Your task to perform on an android device: Open Google Image 0: 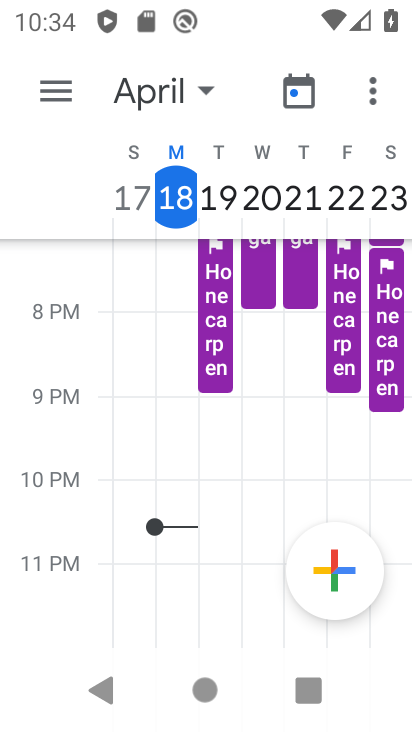
Step 0: press home button
Your task to perform on an android device: Open Google Image 1: 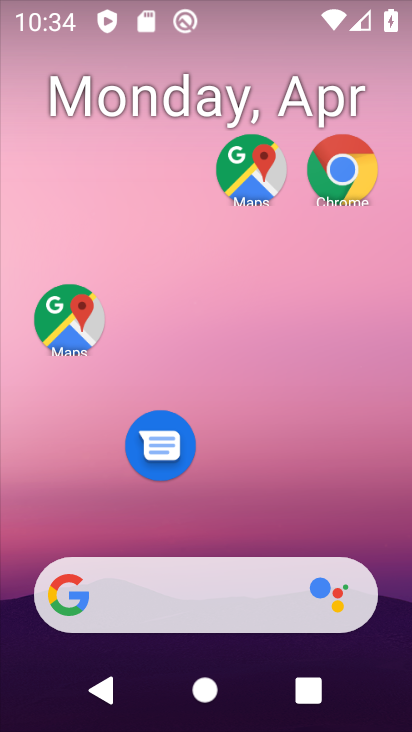
Step 1: drag from (255, 492) to (370, 9)
Your task to perform on an android device: Open Google Image 2: 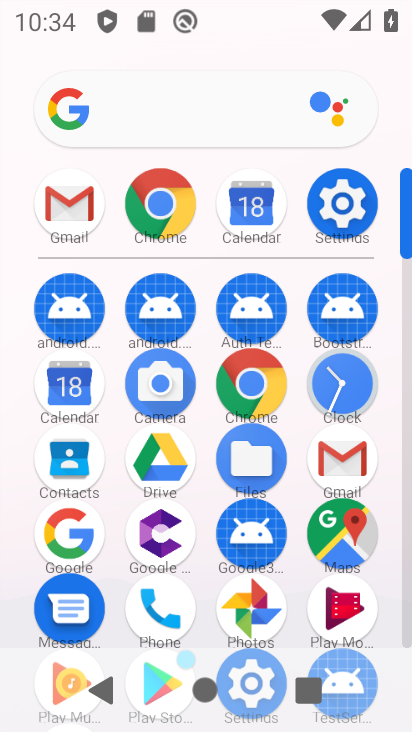
Step 2: click (73, 530)
Your task to perform on an android device: Open Google Image 3: 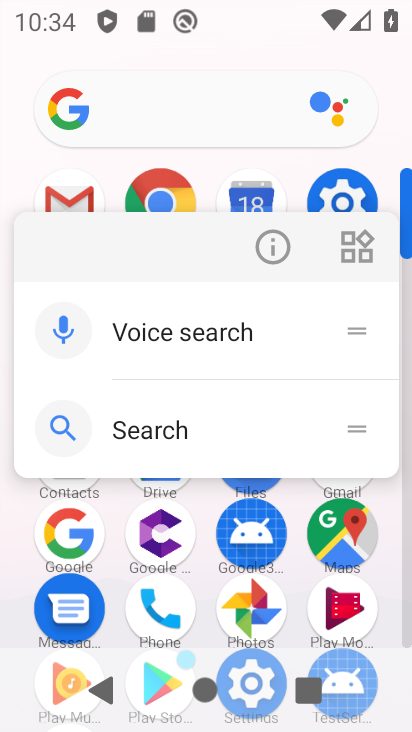
Step 3: click (77, 523)
Your task to perform on an android device: Open Google Image 4: 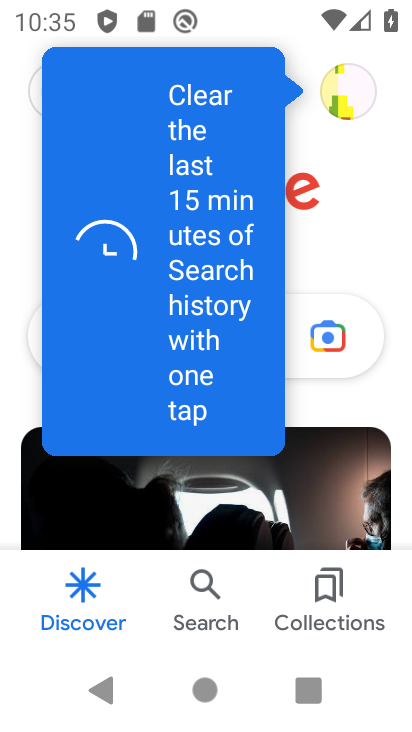
Step 4: click (76, 521)
Your task to perform on an android device: Open Google Image 5: 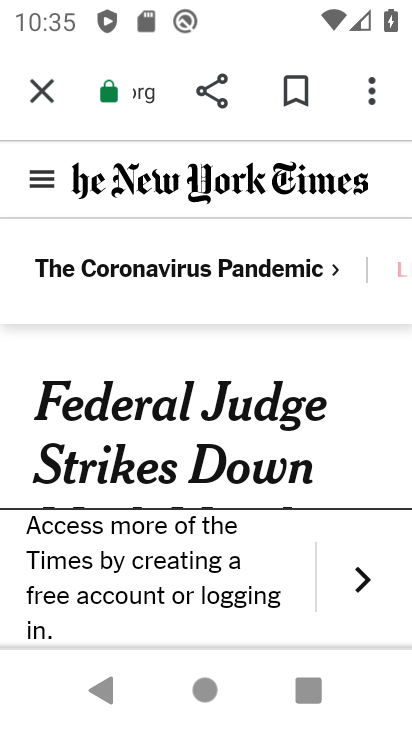
Step 5: task complete